Your task to perform on an android device: Open eBay Image 0: 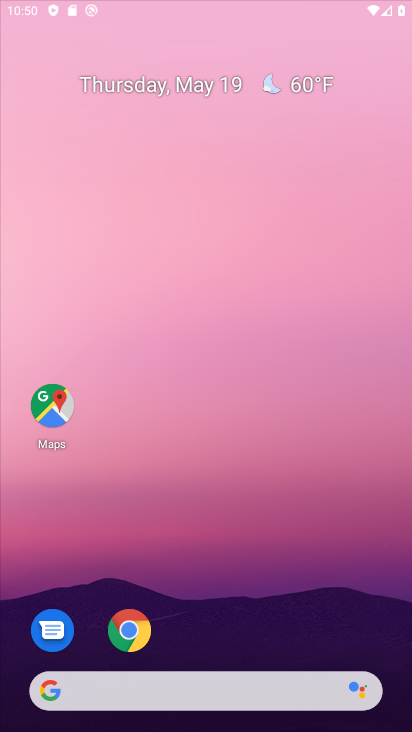
Step 0: click (59, 409)
Your task to perform on an android device: Open eBay Image 1: 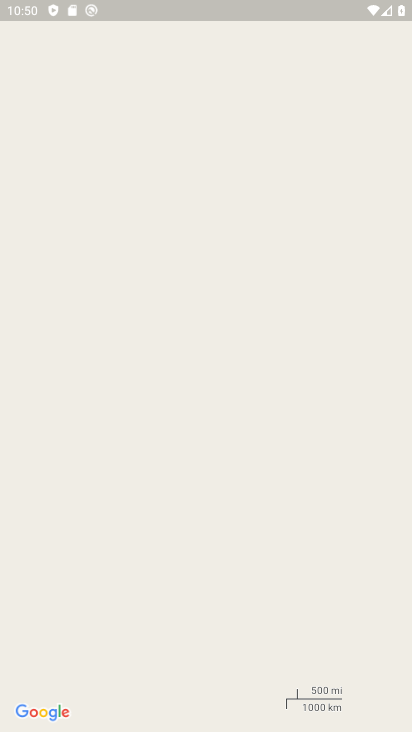
Step 1: press home button
Your task to perform on an android device: Open eBay Image 2: 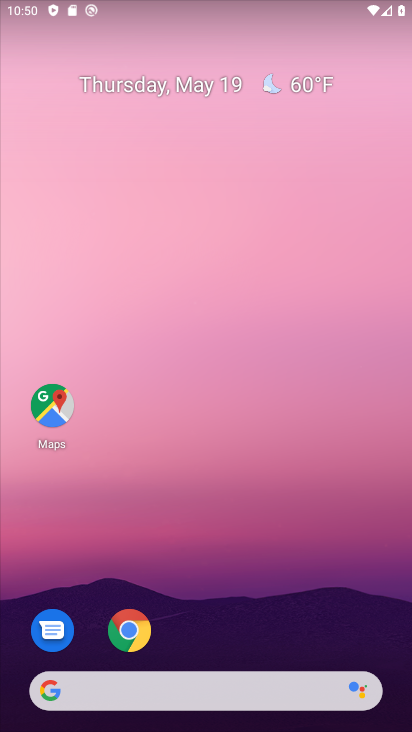
Step 2: click (127, 620)
Your task to perform on an android device: Open eBay Image 3: 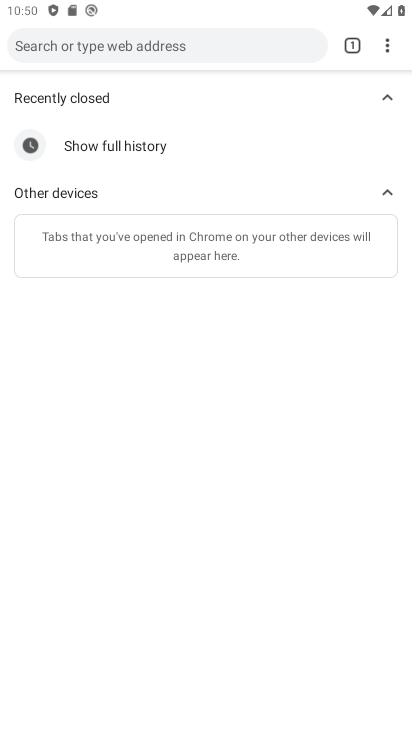
Step 3: click (241, 38)
Your task to perform on an android device: Open eBay Image 4: 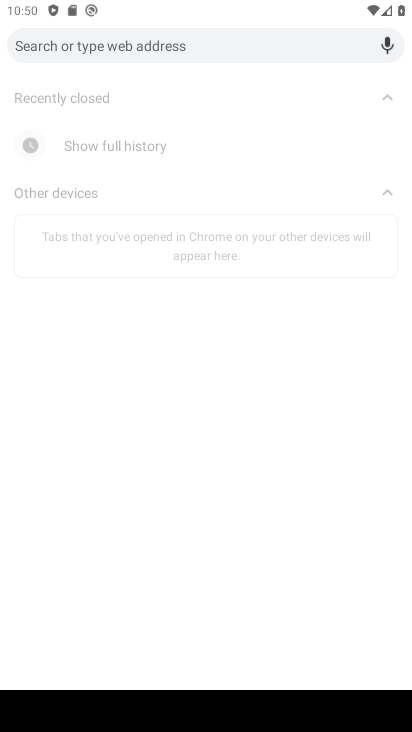
Step 4: type "eBay"
Your task to perform on an android device: Open eBay Image 5: 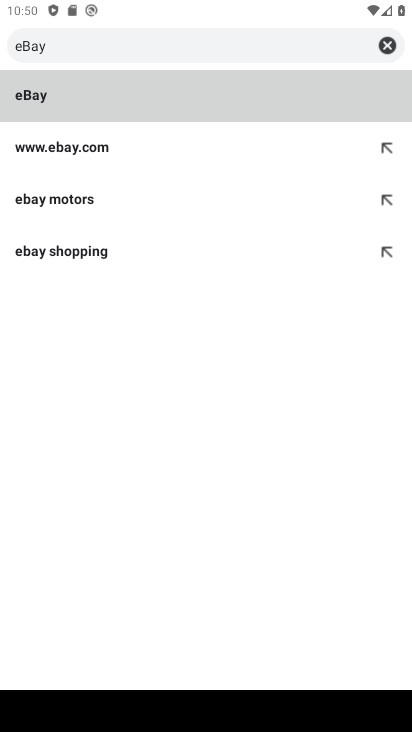
Step 5: click (131, 88)
Your task to perform on an android device: Open eBay Image 6: 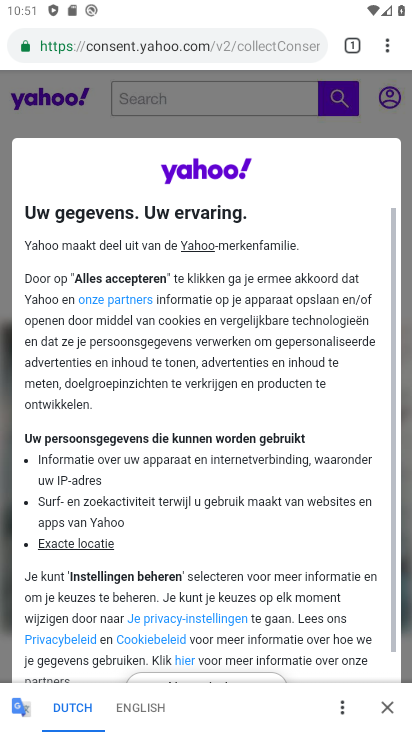
Step 6: drag from (238, 576) to (281, 171)
Your task to perform on an android device: Open eBay Image 7: 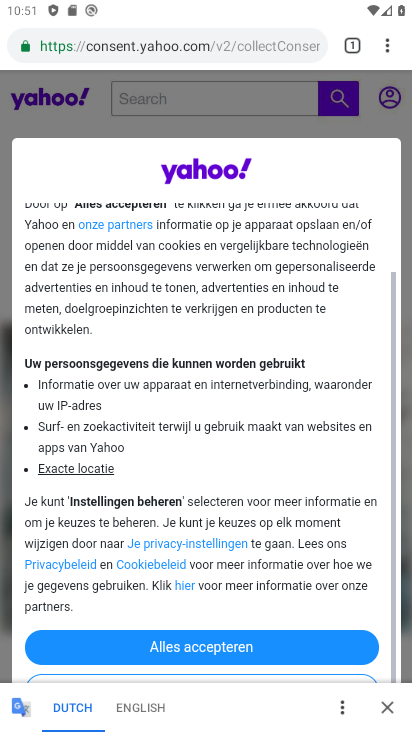
Step 7: click (259, 633)
Your task to perform on an android device: Open eBay Image 8: 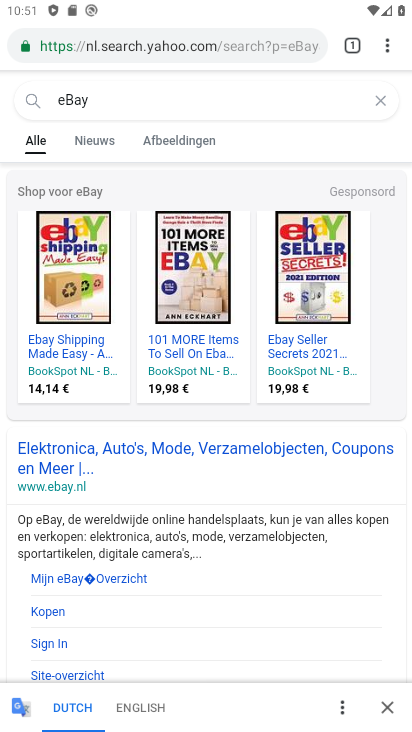
Step 8: click (179, 446)
Your task to perform on an android device: Open eBay Image 9: 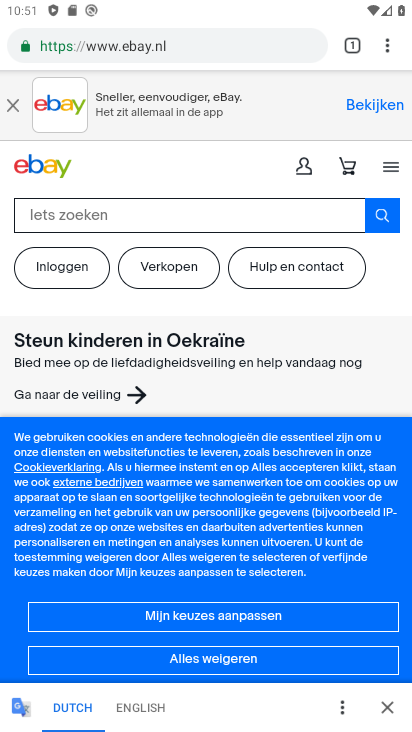
Step 9: task complete